Your task to perform on an android device: move an email to a new category in the gmail app Image 0: 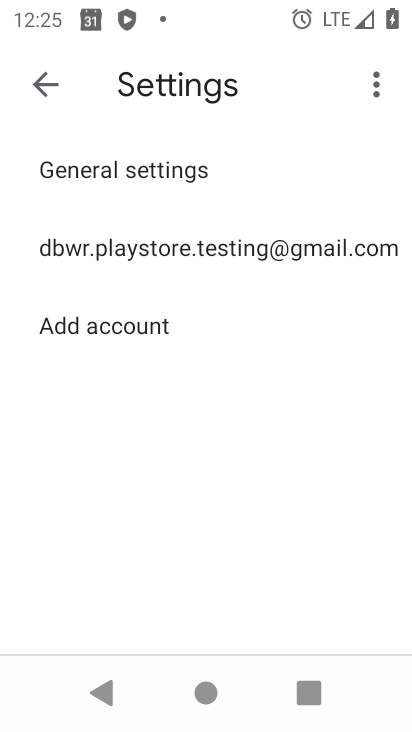
Step 0: press back button
Your task to perform on an android device: move an email to a new category in the gmail app Image 1: 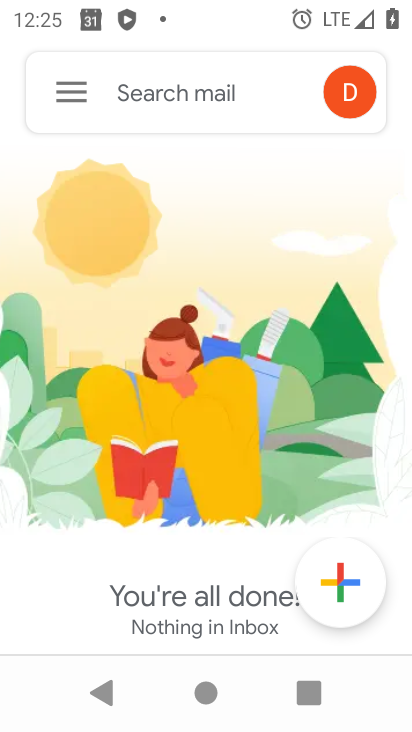
Step 1: click (77, 92)
Your task to perform on an android device: move an email to a new category in the gmail app Image 2: 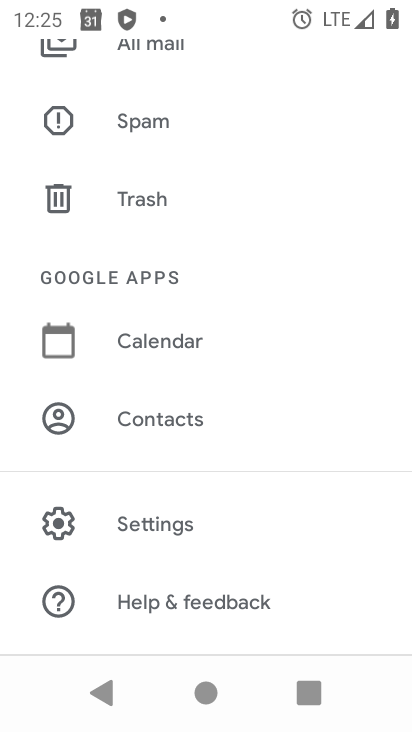
Step 2: click (161, 47)
Your task to perform on an android device: move an email to a new category in the gmail app Image 3: 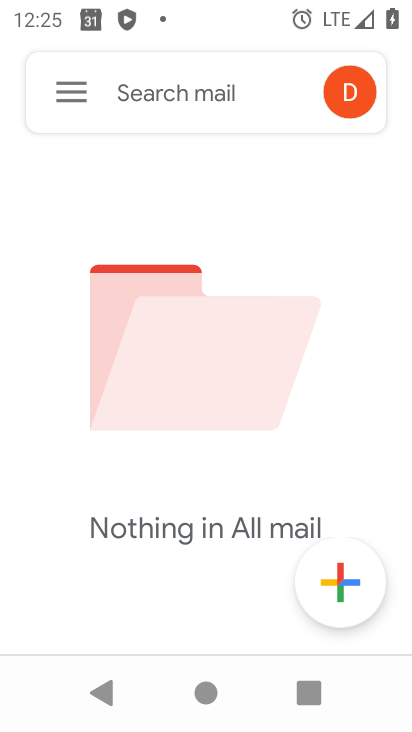
Step 3: task complete